Your task to perform on an android device: toggle javascript in the chrome app Image 0: 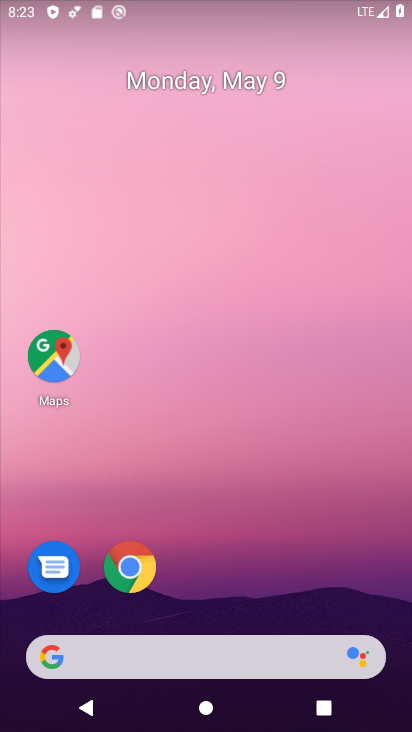
Step 0: click (134, 568)
Your task to perform on an android device: toggle javascript in the chrome app Image 1: 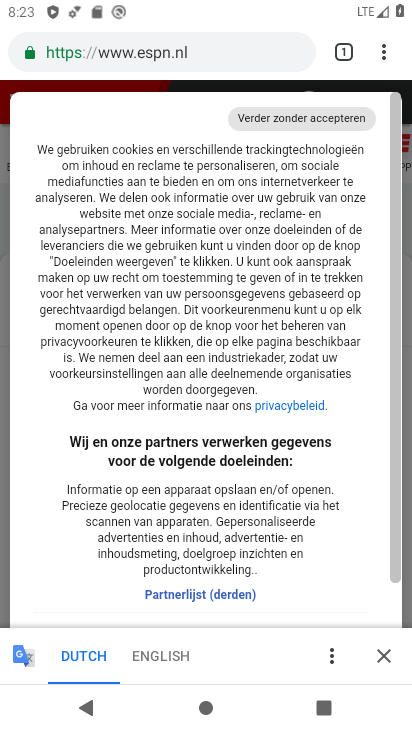
Step 1: click (379, 656)
Your task to perform on an android device: toggle javascript in the chrome app Image 2: 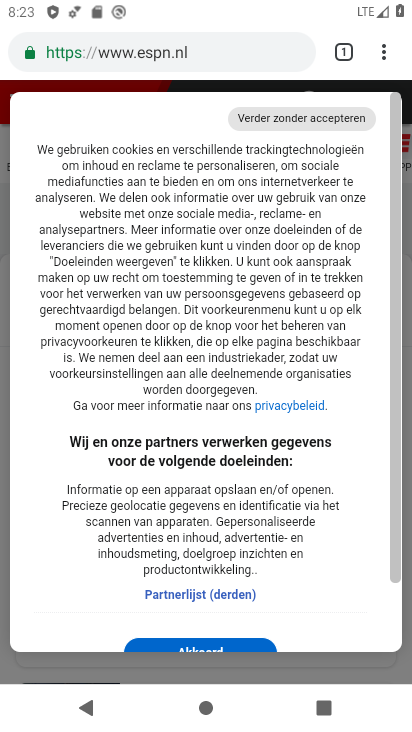
Step 2: click (209, 644)
Your task to perform on an android device: toggle javascript in the chrome app Image 3: 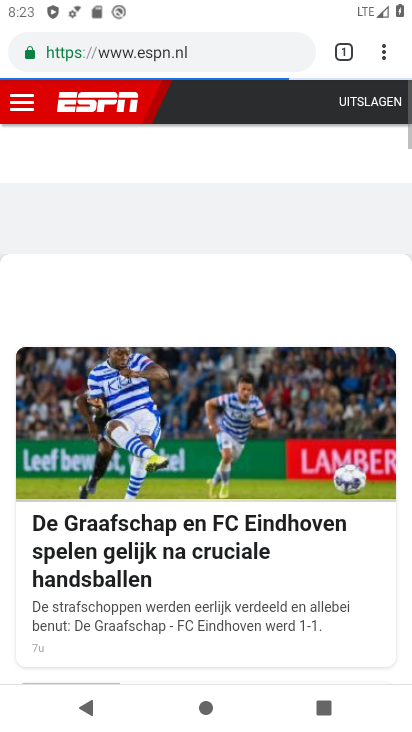
Step 3: click (376, 52)
Your task to perform on an android device: toggle javascript in the chrome app Image 4: 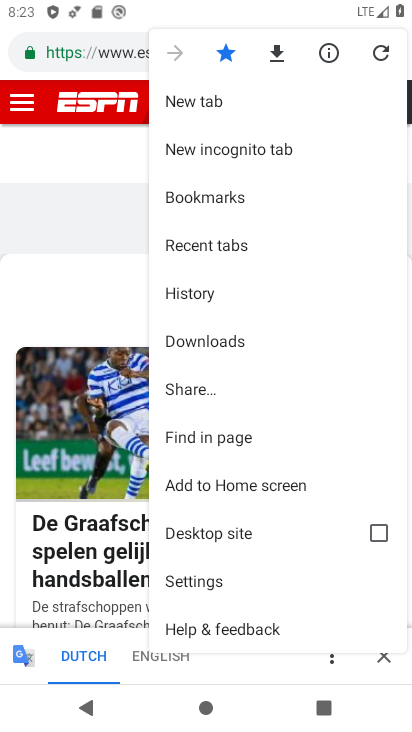
Step 4: click (229, 589)
Your task to perform on an android device: toggle javascript in the chrome app Image 5: 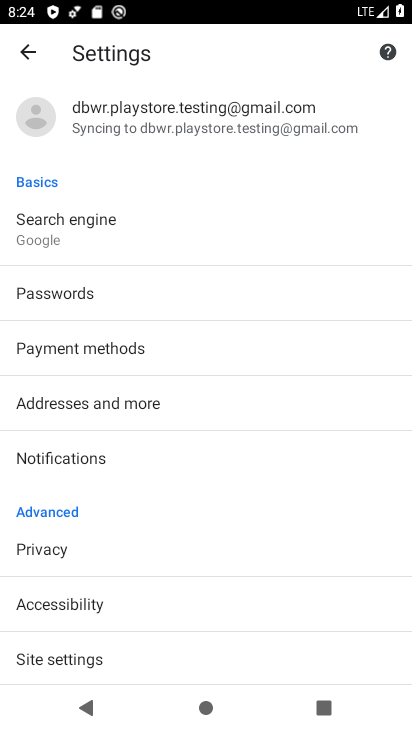
Step 5: drag from (163, 620) to (158, 298)
Your task to perform on an android device: toggle javascript in the chrome app Image 6: 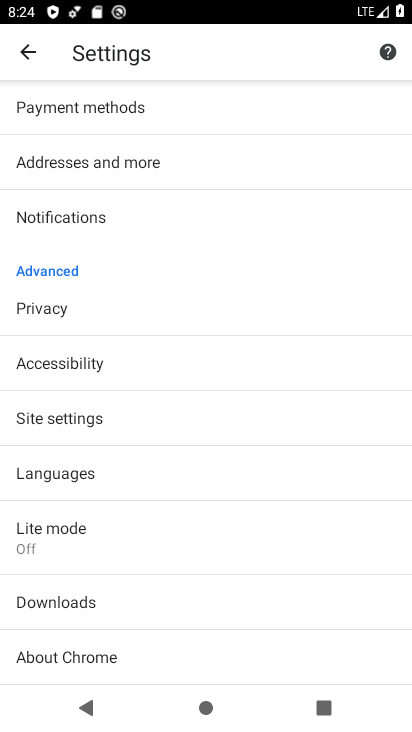
Step 6: click (104, 416)
Your task to perform on an android device: toggle javascript in the chrome app Image 7: 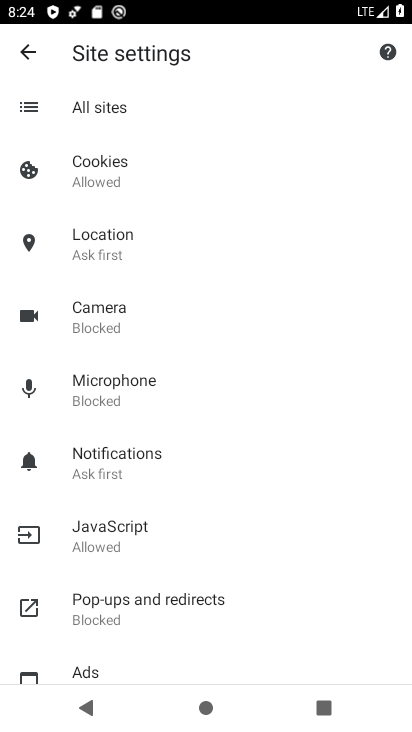
Step 7: click (142, 531)
Your task to perform on an android device: toggle javascript in the chrome app Image 8: 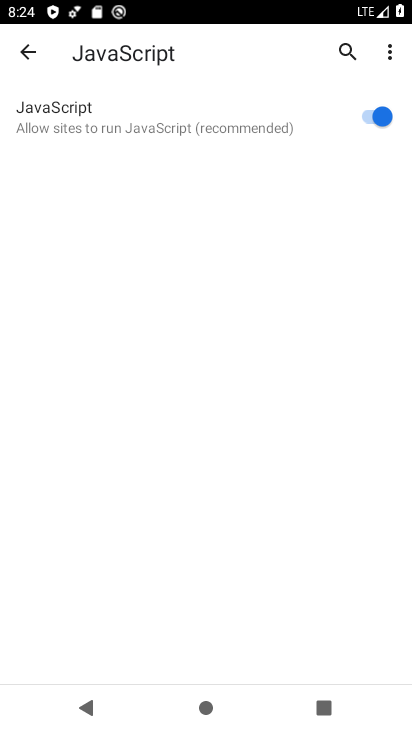
Step 8: click (383, 121)
Your task to perform on an android device: toggle javascript in the chrome app Image 9: 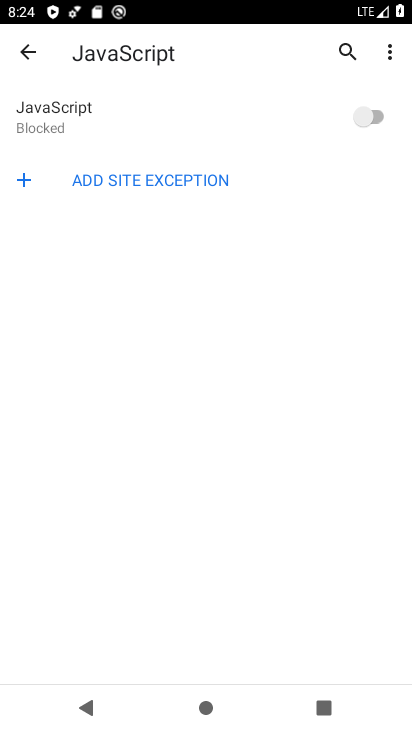
Step 9: task complete